Your task to perform on an android device: Show me the alarms in the clock app Image 0: 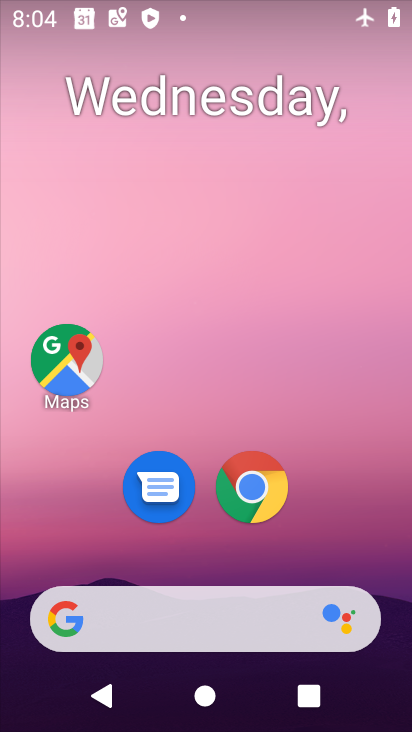
Step 0: drag from (378, 548) to (314, 16)
Your task to perform on an android device: Show me the alarms in the clock app Image 1: 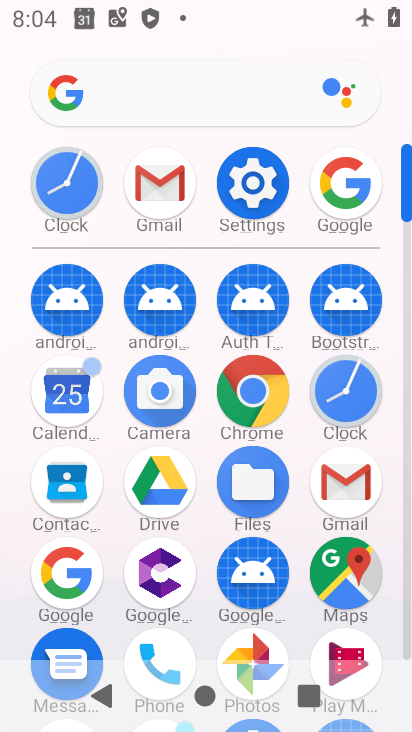
Step 1: click (72, 183)
Your task to perform on an android device: Show me the alarms in the clock app Image 2: 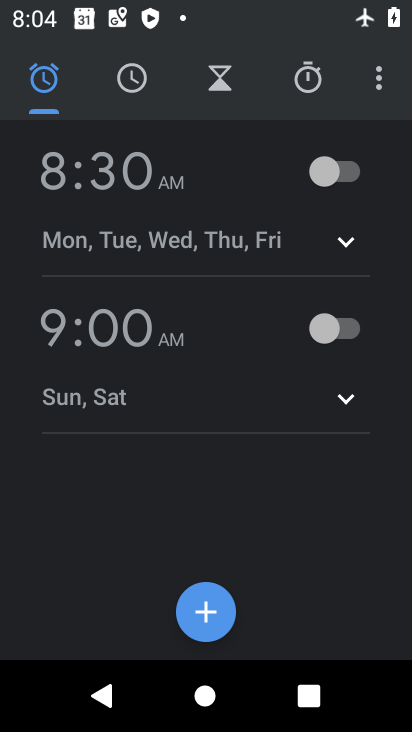
Step 2: task complete